Your task to perform on an android device: snooze an email in the gmail app Image 0: 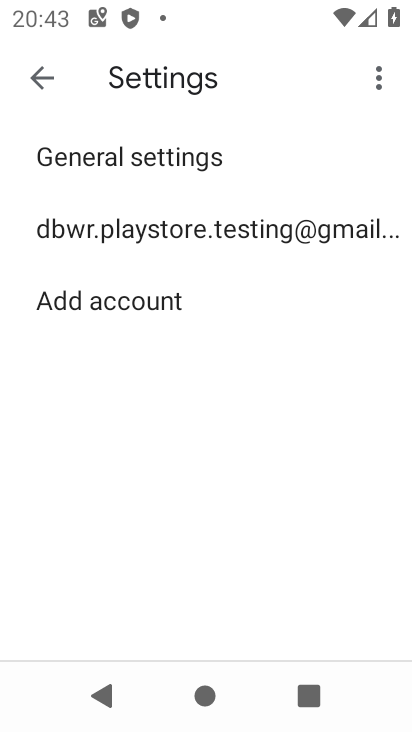
Step 0: press home button
Your task to perform on an android device: snooze an email in the gmail app Image 1: 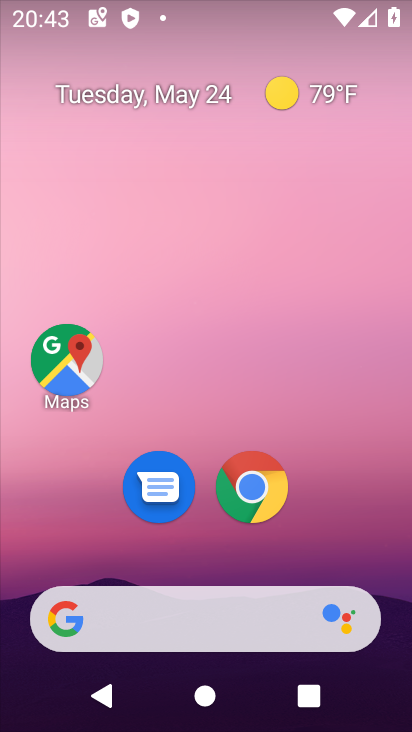
Step 1: drag from (312, 550) to (375, 125)
Your task to perform on an android device: snooze an email in the gmail app Image 2: 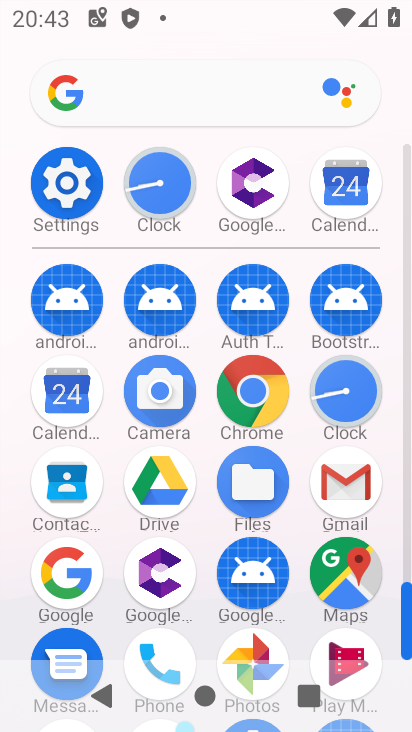
Step 2: click (336, 479)
Your task to perform on an android device: snooze an email in the gmail app Image 3: 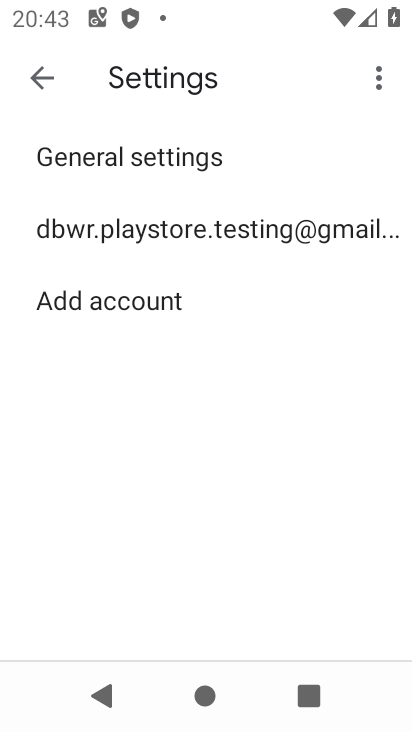
Step 3: task complete